Your task to perform on an android device: turn pop-ups off in chrome Image 0: 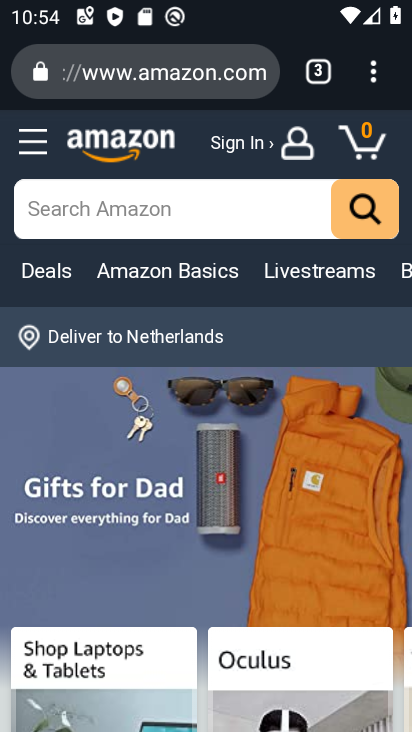
Step 0: click (380, 222)
Your task to perform on an android device: turn pop-ups off in chrome Image 1: 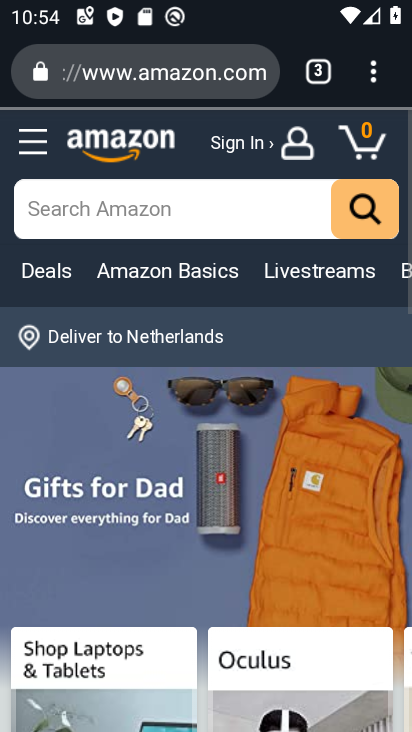
Step 1: press home button
Your task to perform on an android device: turn pop-ups off in chrome Image 2: 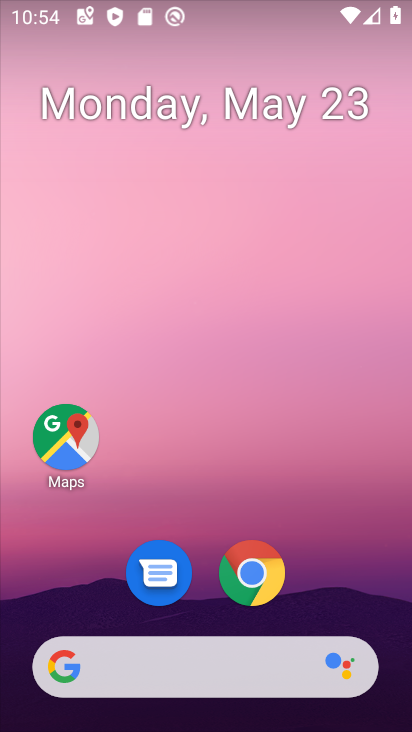
Step 2: click (261, 587)
Your task to perform on an android device: turn pop-ups off in chrome Image 3: 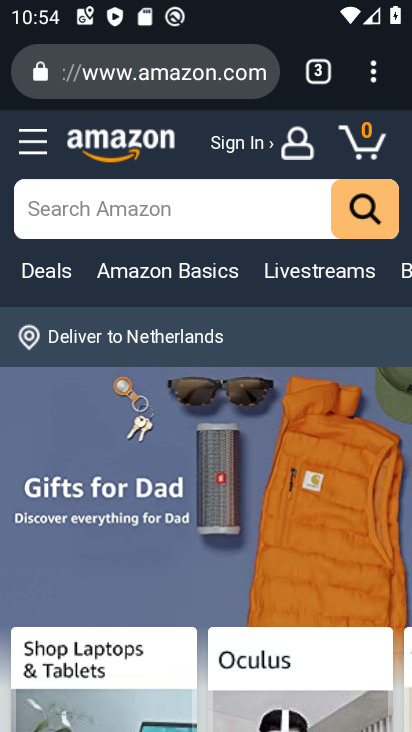
Step 3: click (374, 81)
Your task to perform on an android device: turn pop-ups off in chrome Image 4: 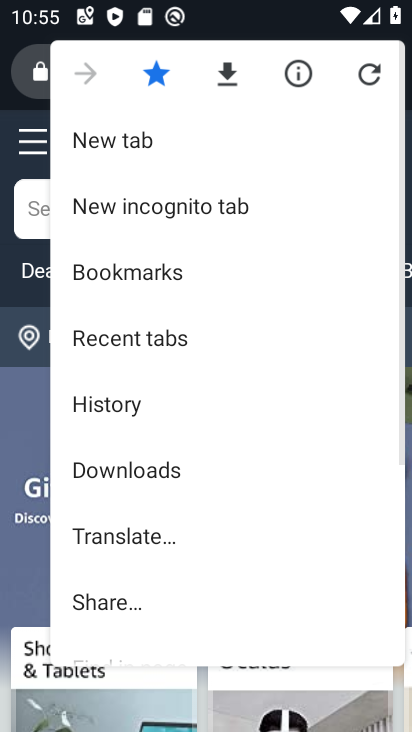
Step 4: drag from (247, 514) to (262, 403)
Your task to perform on an android device: turn pop-ups off in chrome Image 5: 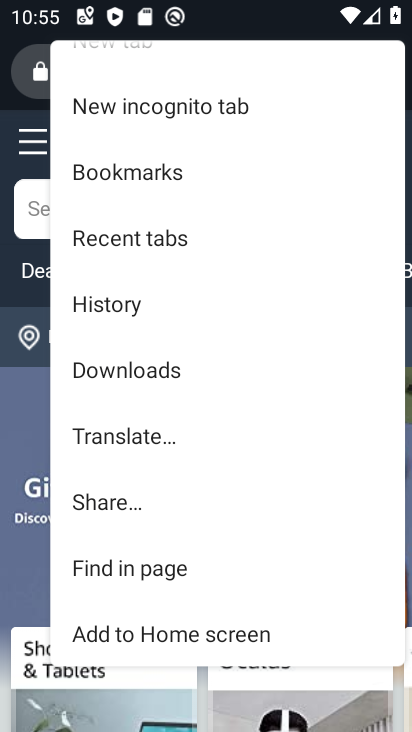
Step 5: drag from (213, 615) to (242, 289)
Your task to perform on an android device: turn pop-ups off in chrome Image 6: 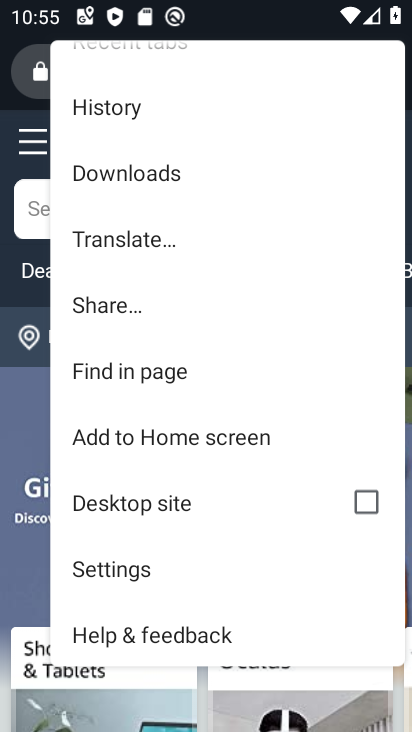
Step 6: click (164, 567)
Your task to perform on an android device: turn pop-ups off in chrome Image 7: 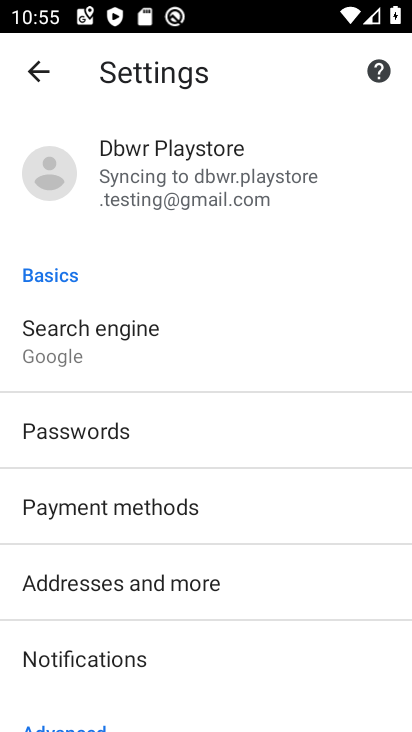
Step 7: drag from (186, 644) to (343, 49)
Your task to perform on an android device: turn pop-ups off in chrome Image 8: 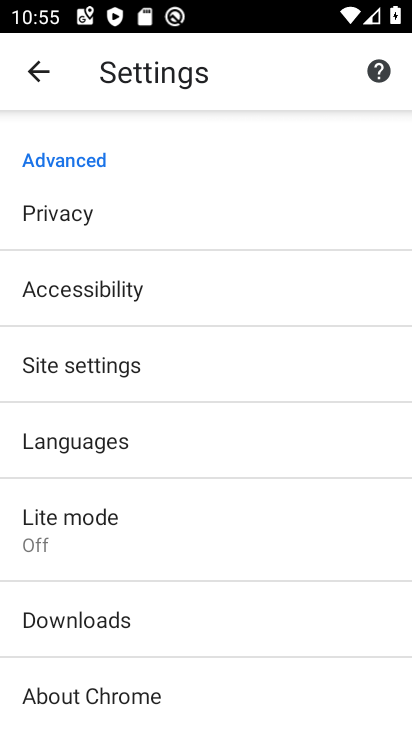
Step 8: click (171, 361)
Your task to perform on an android device: turn pop-ups off in chrome Image 9: 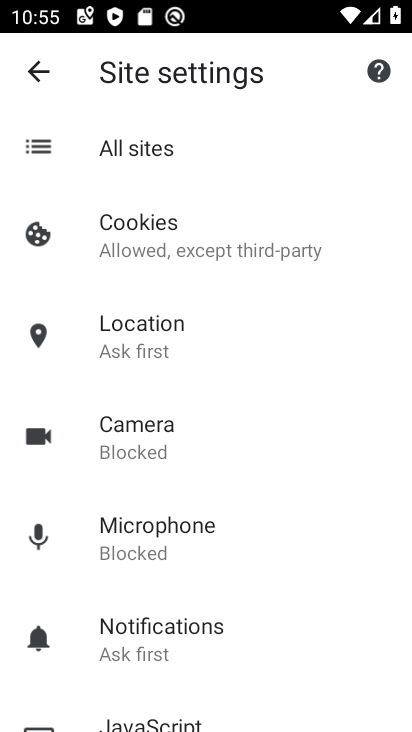
Step 9: drag from (140, 549) to (197, 362)
Your task to perform on an android device: turn pop-ups off in chrome Image 10: 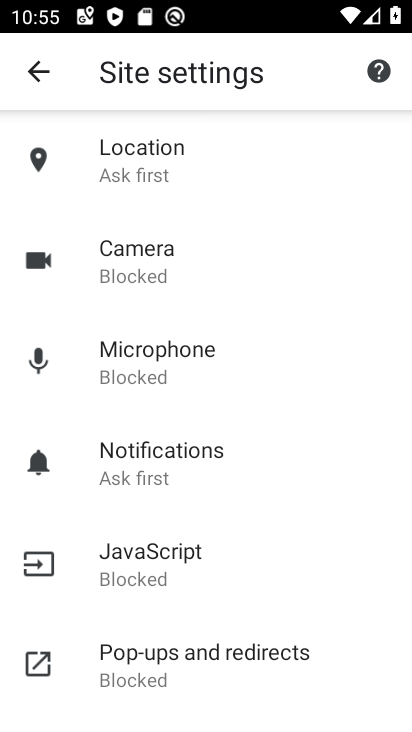
Step 10: click (176, 682)
Your task to perform on an android device: turn pop-ups off in chrome Image 11: 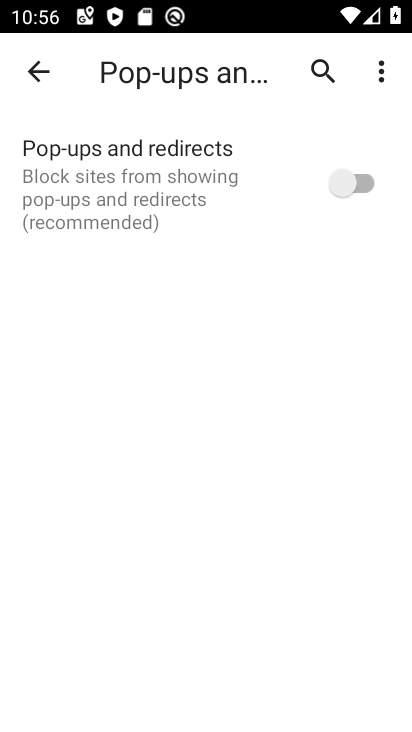
Step 11: task complete